Your task to perform on an android device: Clear the shopping cart on walmart.com. Add lg ultragear to the cart on walmart.com, then select checkout. Image 0: 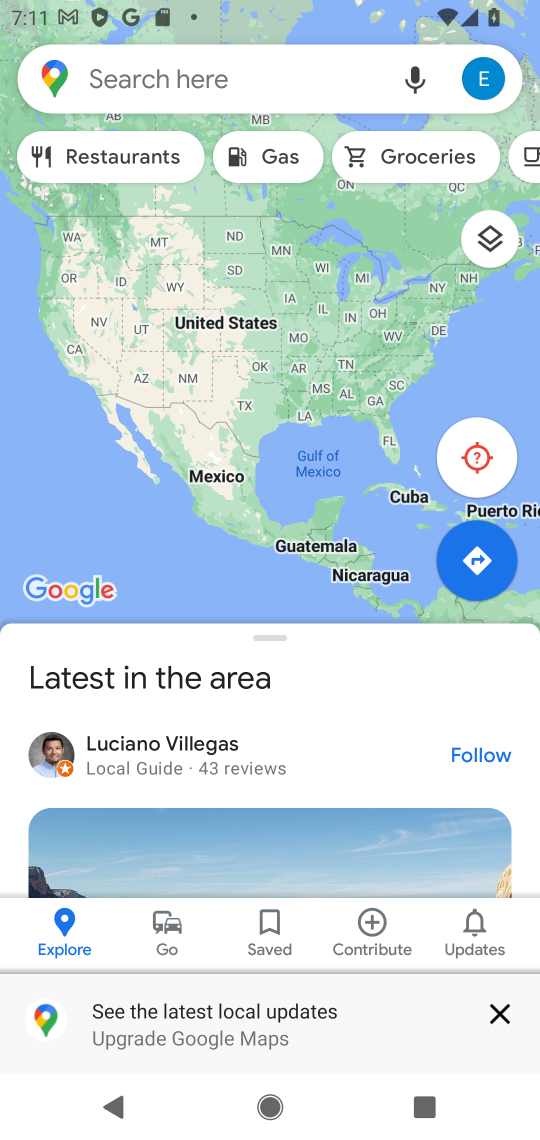
Step 0: press home button
Your task to perform on an android device: Clear the shopping cart on walmart.com. Add lg ultragear to the cart on walmart.com, then select checkout. Image 1: 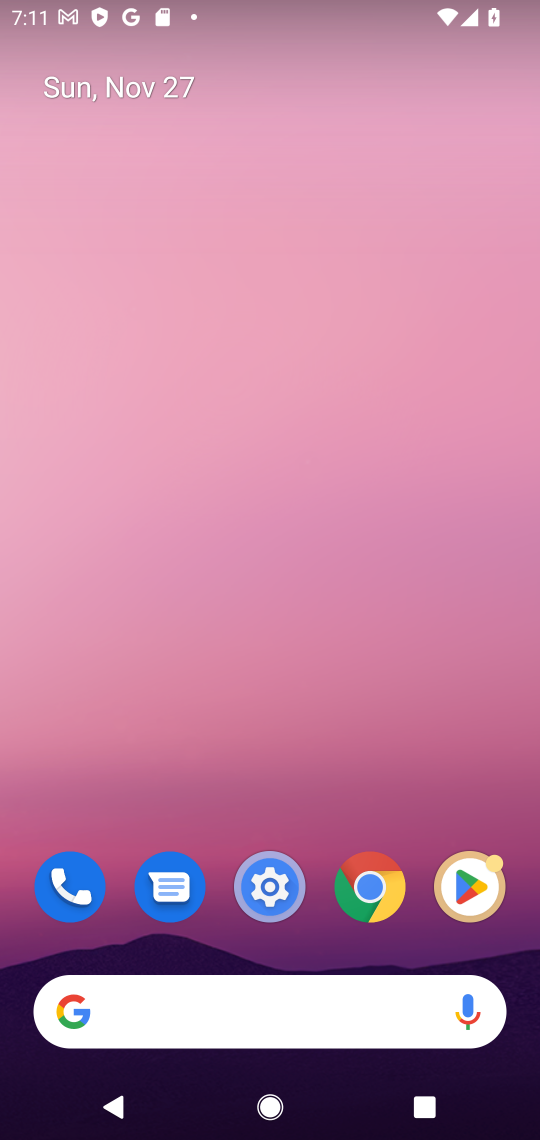
Step 1: click (342, 992)
Your task to perform on an android device: Clear the shopping cart on walmart.com. Add lg ultragear to the cart on walmart.com, then select checkout. Image 2: 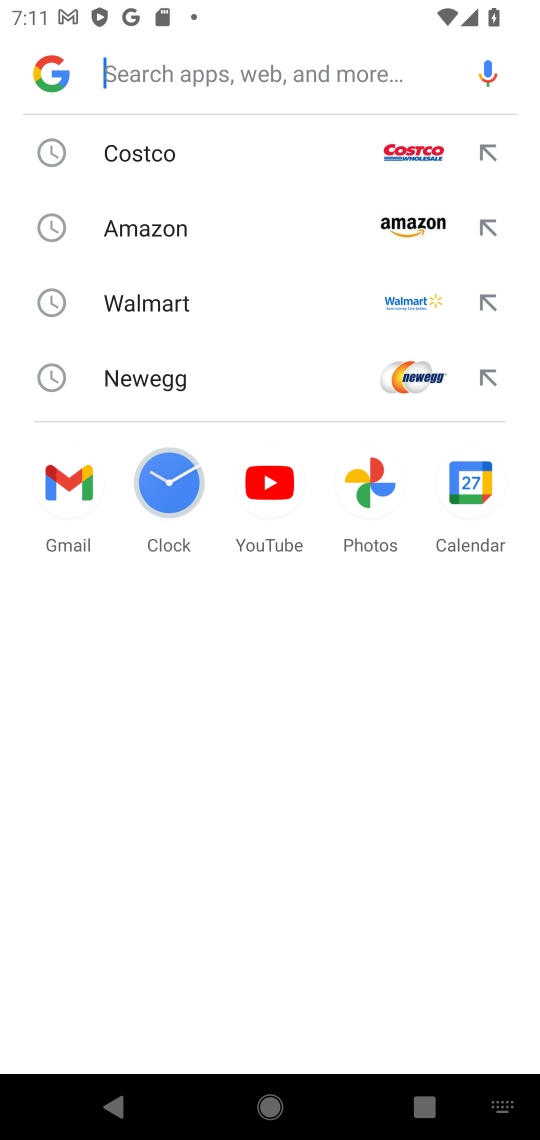
Step 2: click (217, 299)
Your task to perform on an android device: Clear the shopping cart on walmart.com. Add lg ultragear to the cart on walmart.com, then select checkout. Image 3: 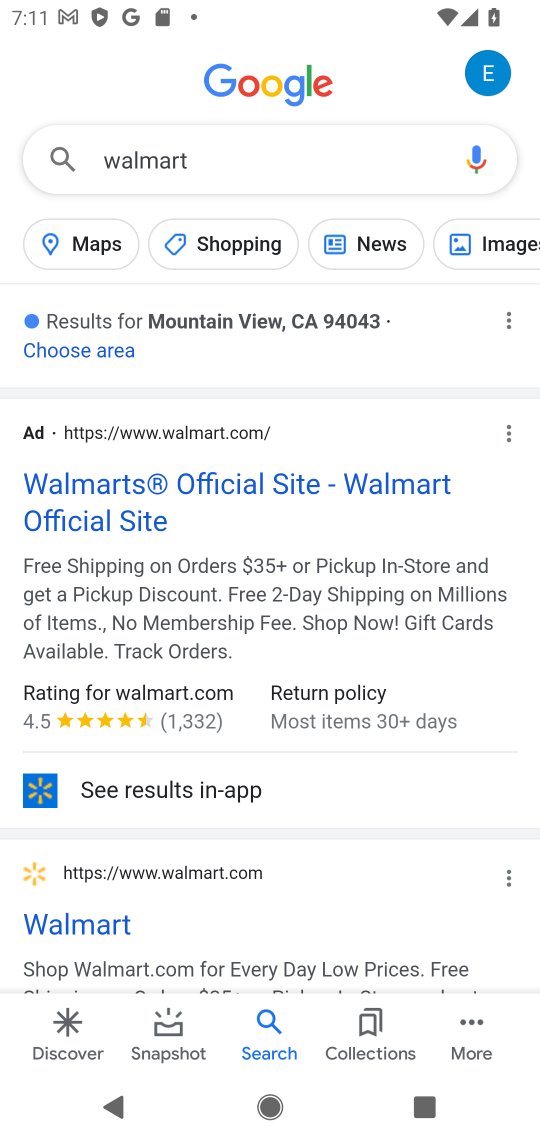
Step 3: click (175, 490)
Your task to perform on an android device: Clear the shopping cart on walmart.com. Add lg ultragear to the cart on walmart.com, then select checkout. Image 4: 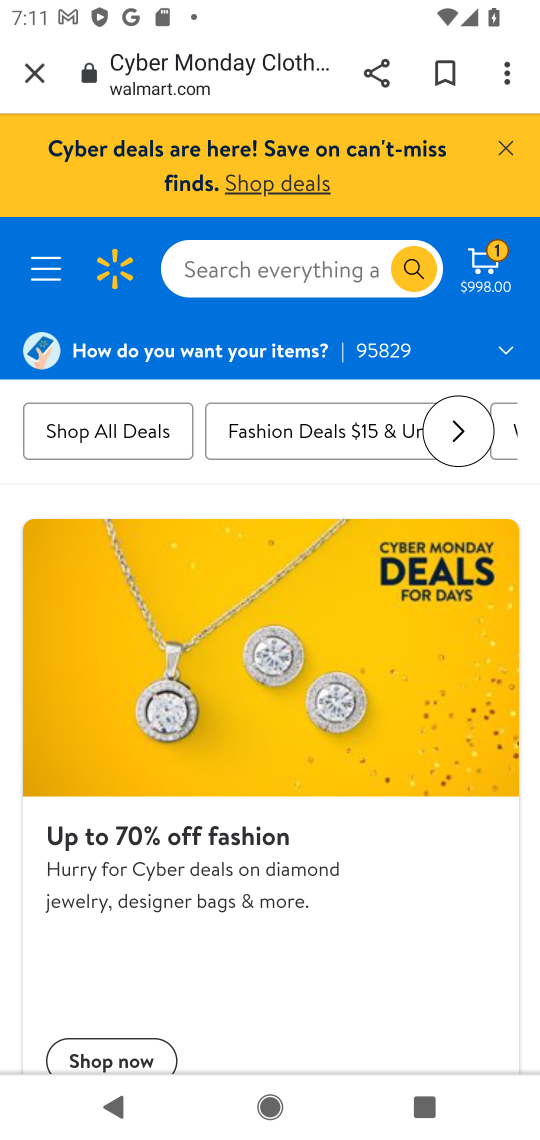
Step 4: click (225, 268)
Your task to perform on an android device: Clear the shopping cart on walmart.com. Add lg ultragear to the cart on walmart.com, then select checkout. Image 5: 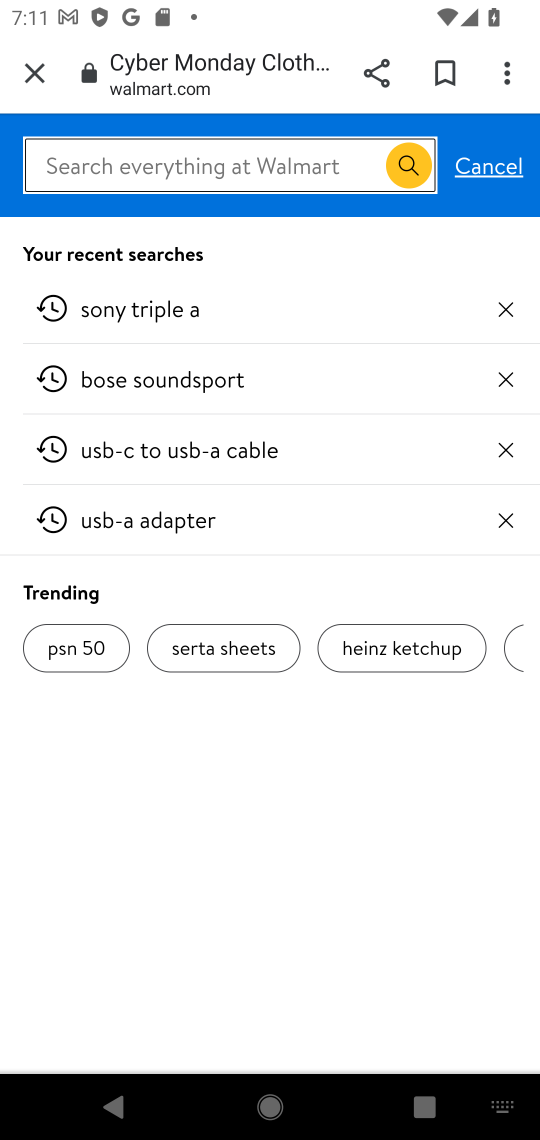
Step 5: type "lg ultragear"
Your task to perform on an android device: Clear the shopping cart on walmart.com. Add lg ultragear to the cart on walmart.com, then select checkout. Image 6: 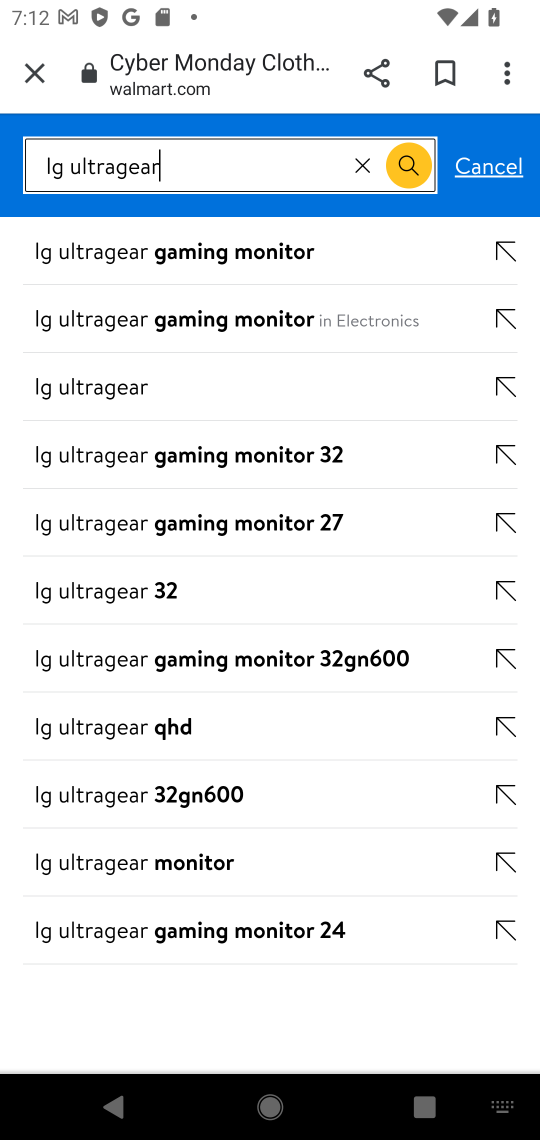
Step 6: click (82, 265)
Your task to perform on an android device: Clear the shopping cart on walmart.com. Add lg ultragear to the cart on walmart.com, then select checkout. Image 7: 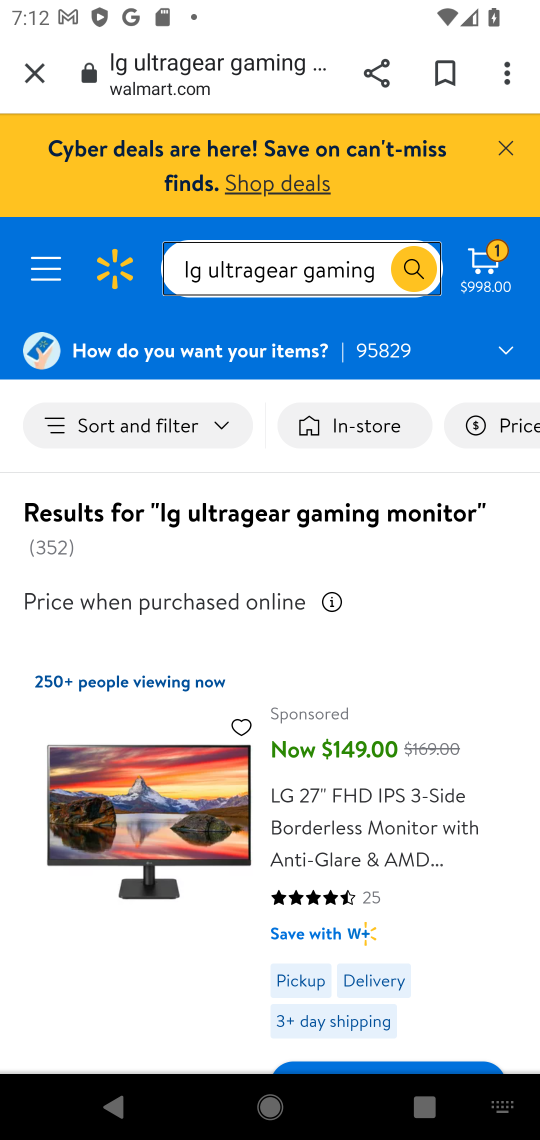
Step 7: click (356, 1063)
Your task to perform on an android device: Clear the shopping cart on walmart.com. Add lg ultragear to the cart on walmart.com, then select checkout. Image 8: 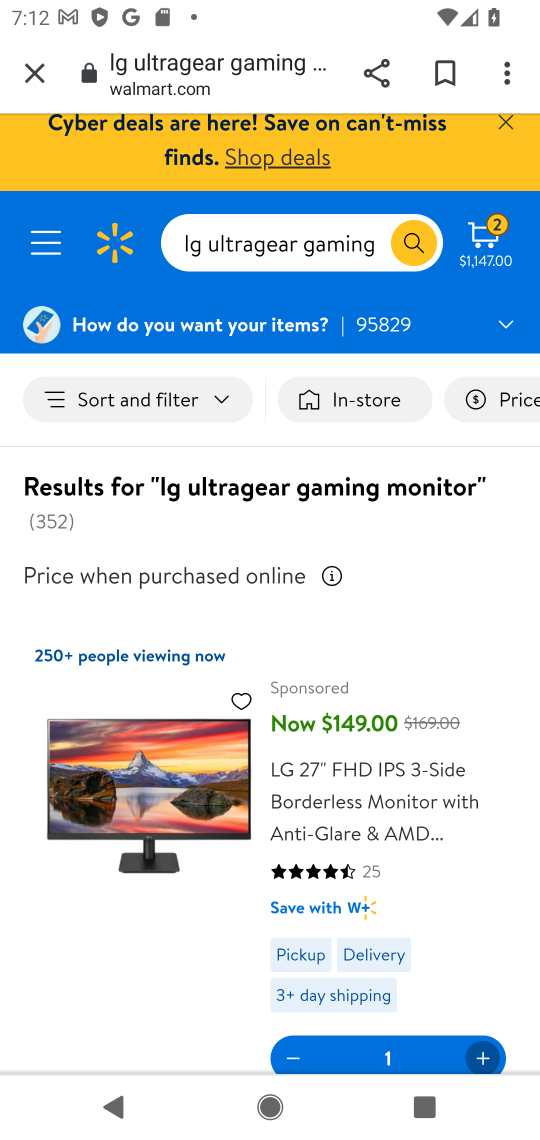
Step 8: task complete